Your task to perform on an android device: Turn off the flashlight Image 0: 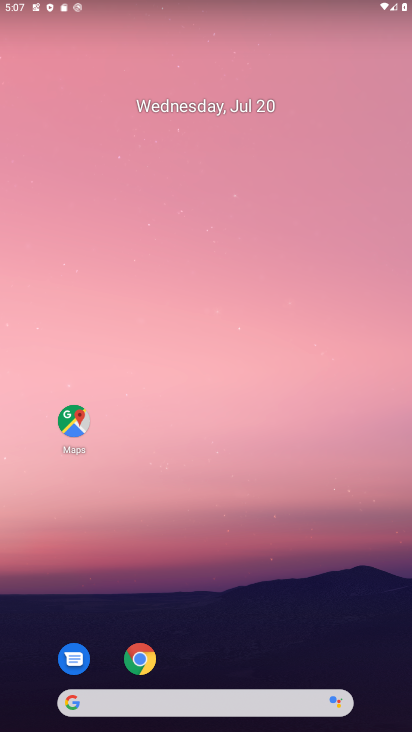
Step 0: drag from (250, 7) to (297, 478)
Your task to perform on an android device: Turn off the flashlight Image 1: 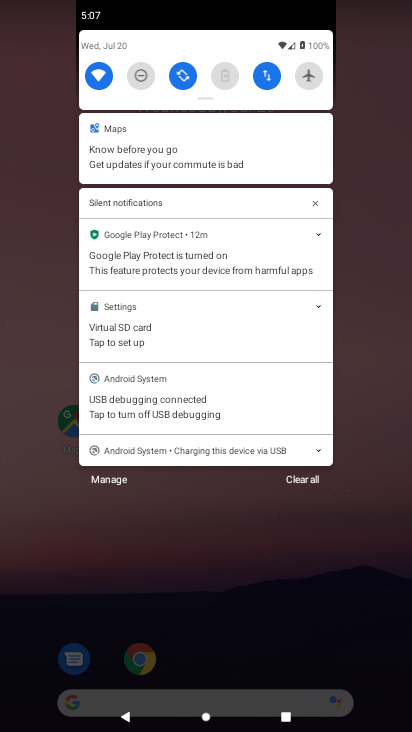
Step 1: drag from (187, 71) to (237, 495)
Your task to perform on an android device: Turn off the flashlight Image 2: 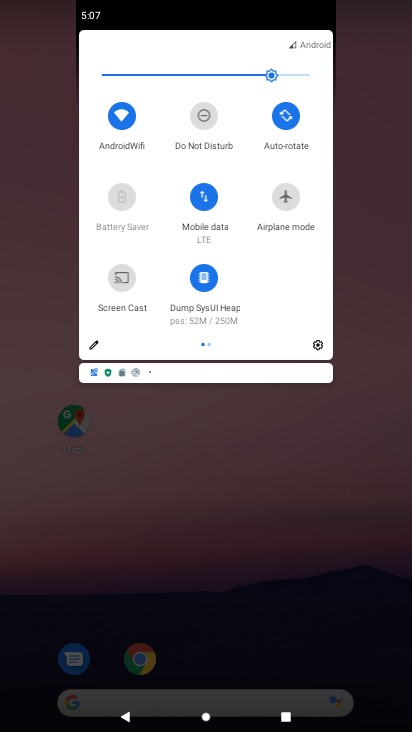
Step 2: drag from (293, 264) to (9, 308)
Your task to perform on an android device: Turn off the flashlight Image 3: 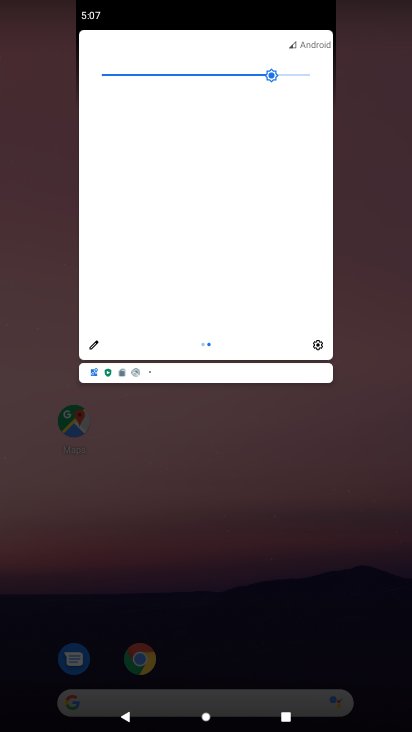
Step 3: click (96, 342)
Your task to perform on an android device: Turn off the flashlight Image 4: 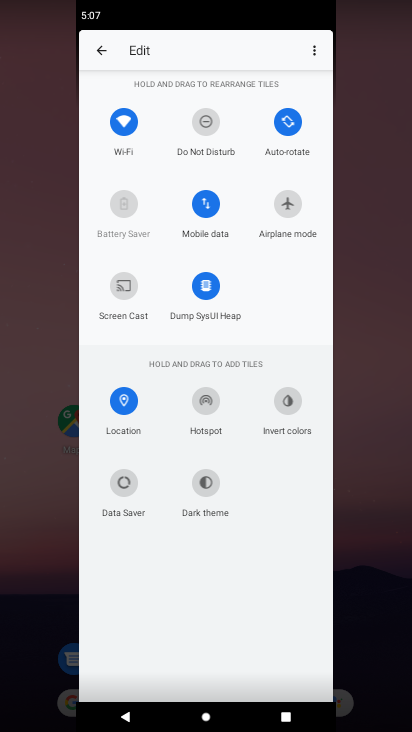
Step 4: task complete